Your task to perform on an android device: turn on translation in the chrome app Image 0: 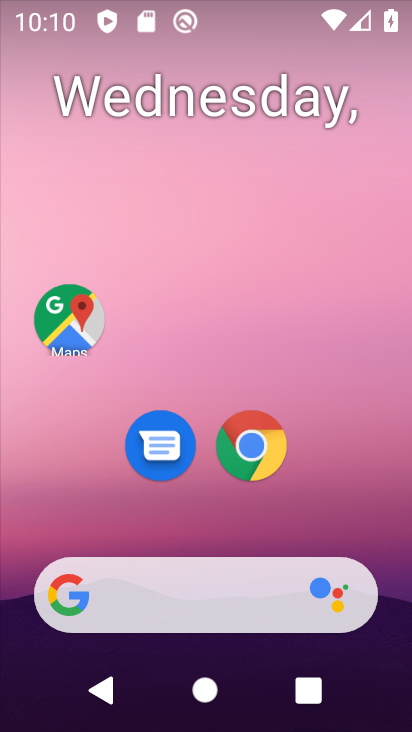
Step 0: click (265, 442)
Your task to perform on an android device: turn on translation in the chrome app Image 1: 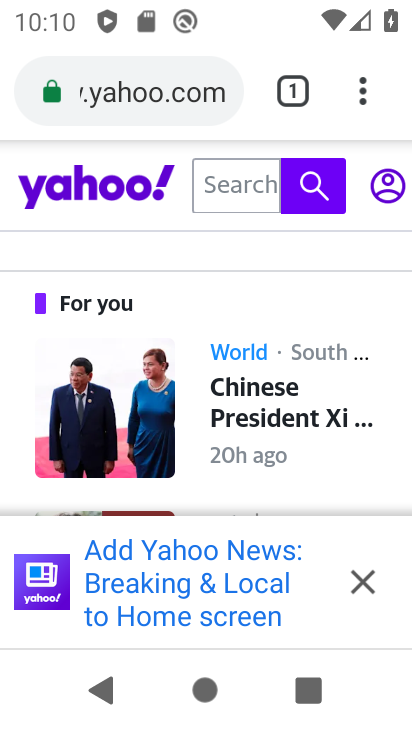
Step 1: drag from (367, 86) to (66, 475)
Your task to perform on an android device: turn on translation in the chrome app Image 2: 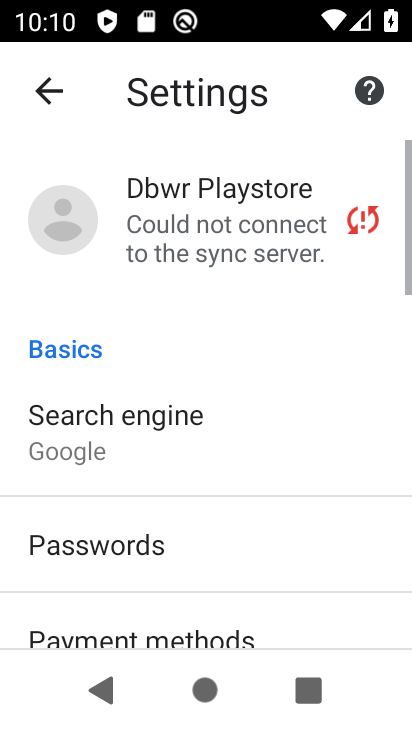
Step 2: drag from (175, 614) to (245, 149)
Your task to perform on an android device: turn on translation in the chrome app Image 3: 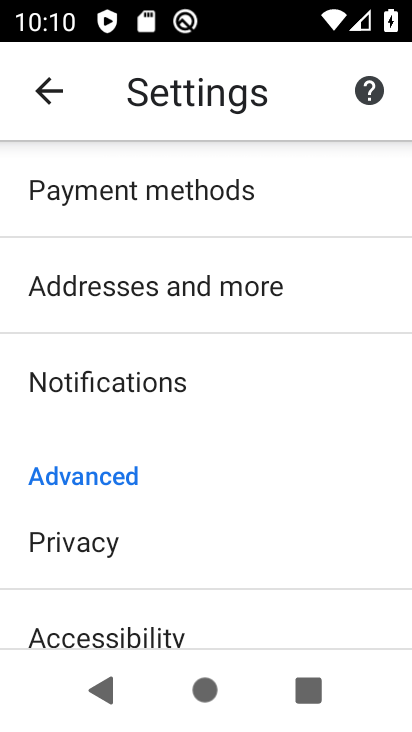
Step 3: drag from (143, 606) to (245, 96)
Your task to perform on an android device: turn on translation in the chrome app Image 4: 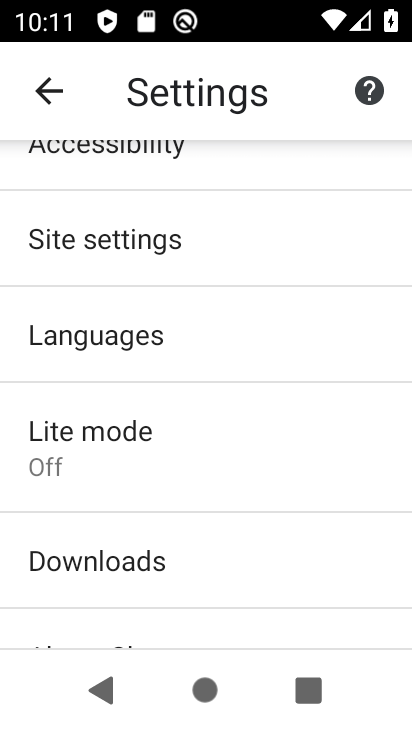
Step 4: click (108, 341)
Your task to perform on an android device: turn on translation in the chrome app Image 5: 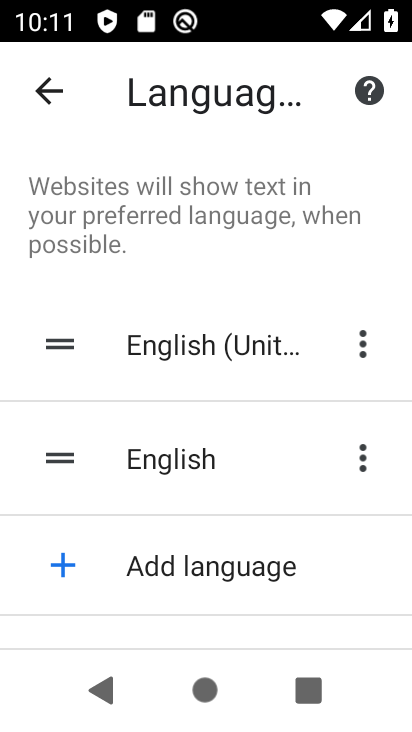
Step 5: task complete